Your task to perform on an android device: turn on data saver in the chrome app Image 0: 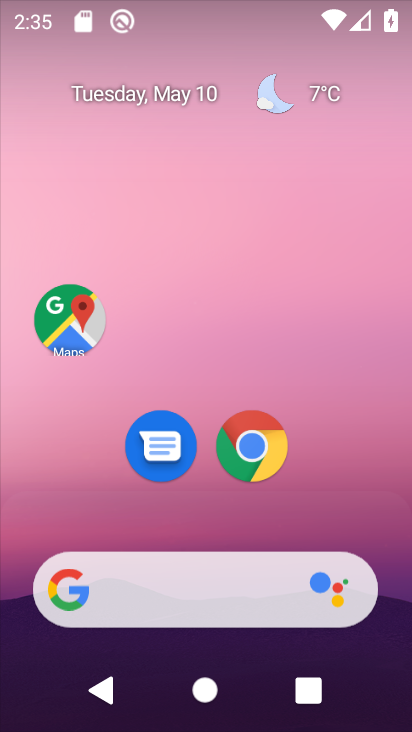
Step 0: click (265, 444)
Your task to perform on an android device: turn on data saver in the chrome app Image 1: 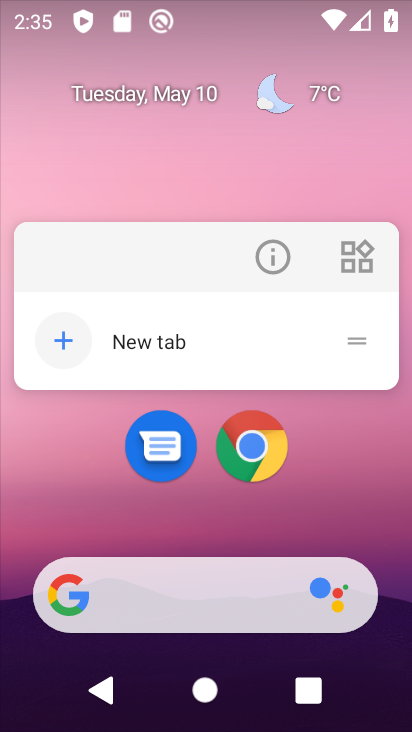
Step 1: click (271, 469)
Your task to perform on an android device: turn on data saver in the chrome app Image 2: 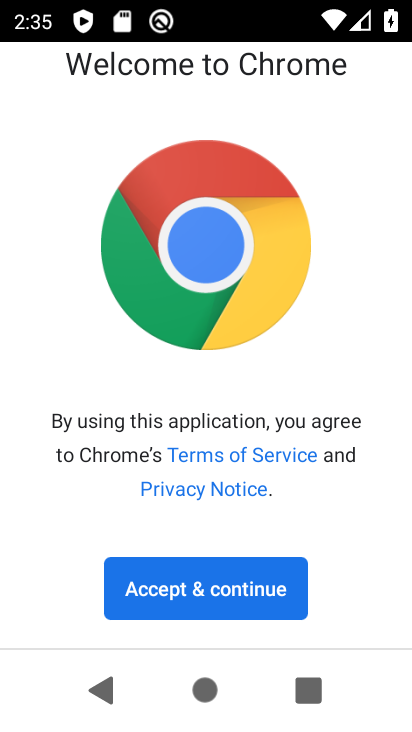
Step 2: click (239, 601)
Your task to perform on an android device: turn on data saver in the chrome app Image 3: 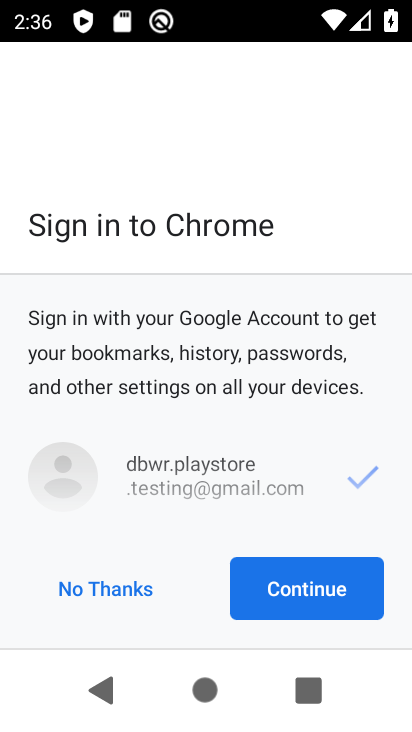
Step 3: click (318, 578)
Your task to perform on an android device: turn on data saver in the chrome app Image 4: 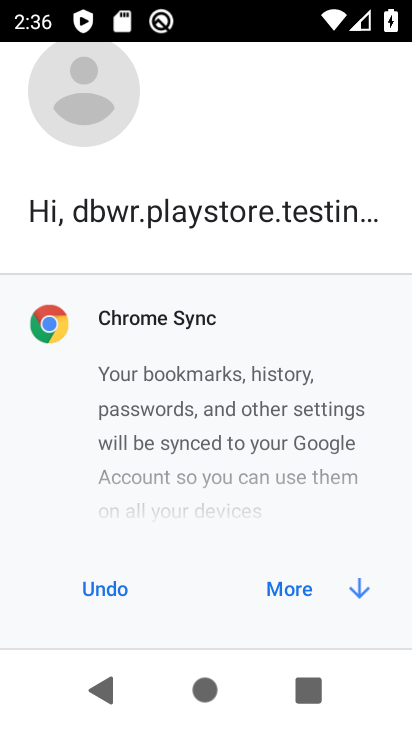
Step 4: click (323, 574)
Your task to perform on an android device: turn on data saver in the chrome app Image 5: 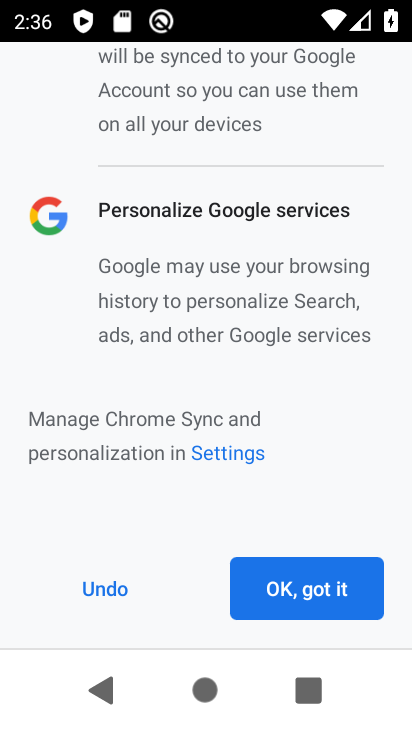
Step 5: click (332, 584)
Your task to perform on an android device: turn on data saver in the chrome app Image 6: 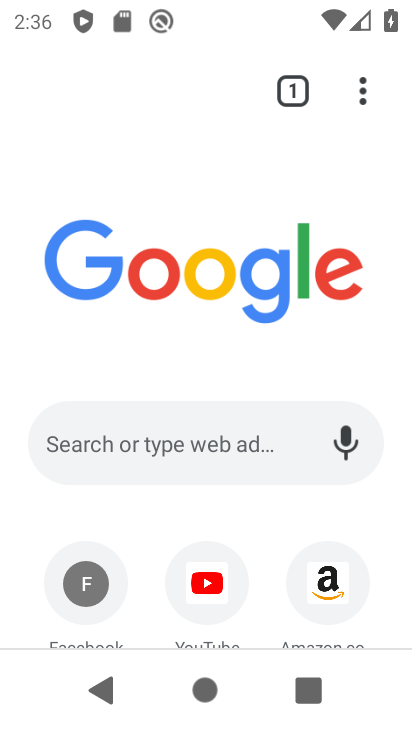
Step 6: click (364, 92)
Your task to perform on an android device: turn on data saver in the chrome app Image 7: 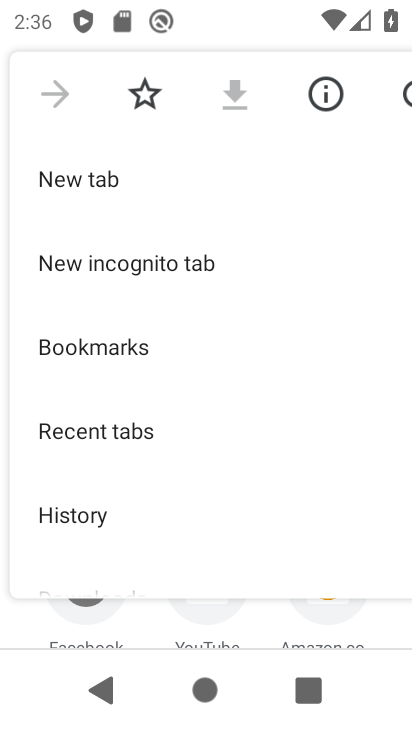
Step 7: drag from (246, 524) to (201, 203)
Your task to perform on an android device: turn on data saver in the chrome app Image 8: 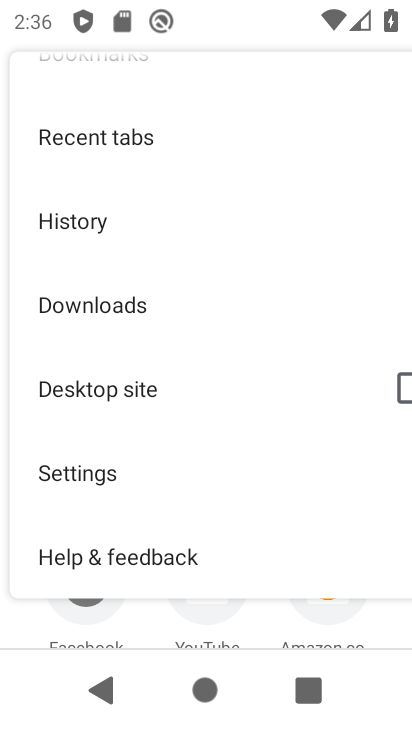
Step 8: click (212, 482)
Your task to perform on an android device: turn on data saver in the chrome app Image 9: 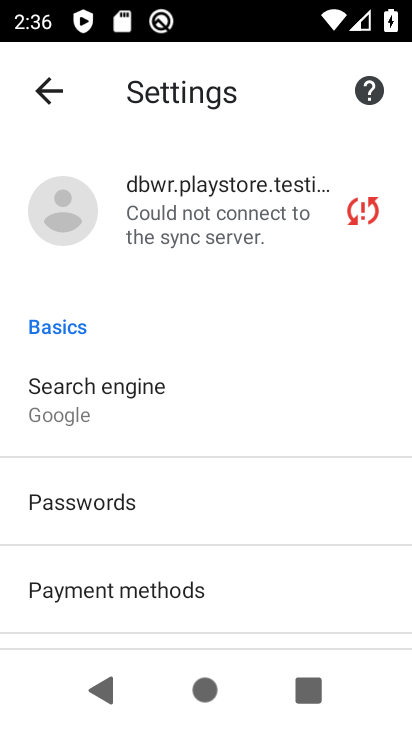
Step 9: drag from (290, 568) to (236, 188)
Your task to perform on an android device: turn on data saver in the chrome app Image 10: 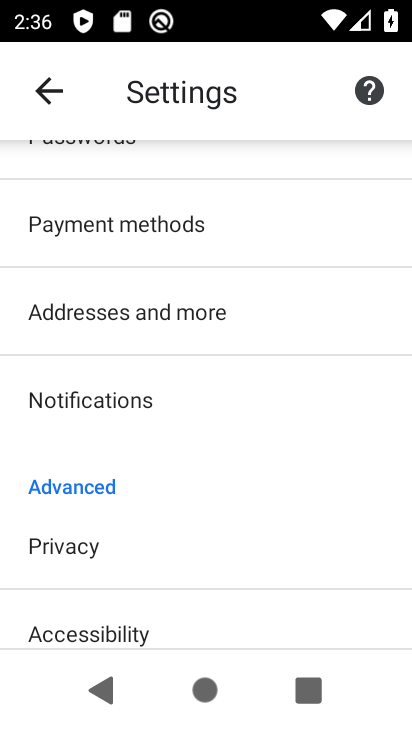
Step 10: drag from (249, 529) to (232, 197)
Your task to perform on an android device: turn on data saver in the chrome app Image 11: 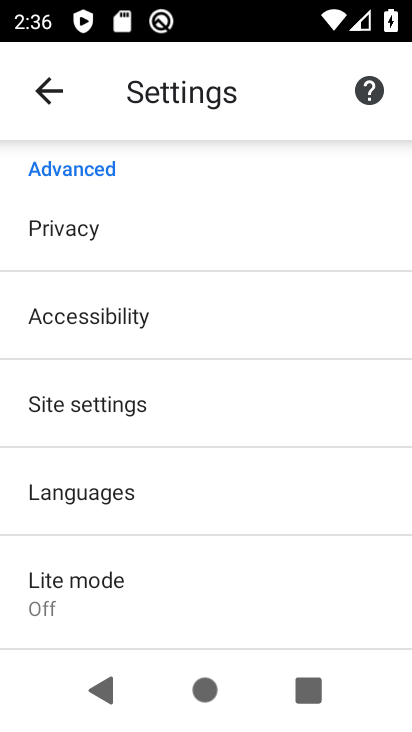
Step 11: drag from (213, 545) to (239, 352)
Your task to perform on an android device: turn on data saver in the chrome app Image 12: 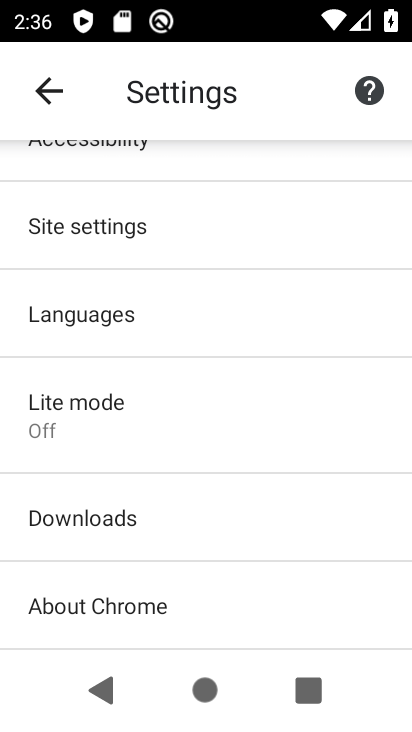
Step 12: click (173, 419)
Your task to perform on an android device: turn on data saver in the chrome app Image 13: 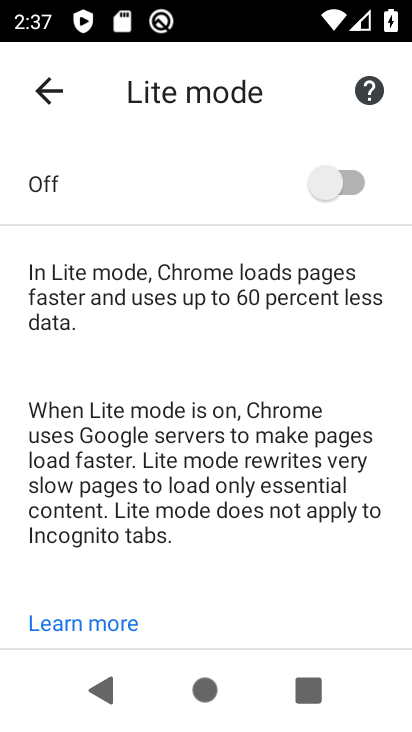
Step 13: click (344, 182)
Your task to perform on an android device: turn on data saver in the chrome app Image 14: 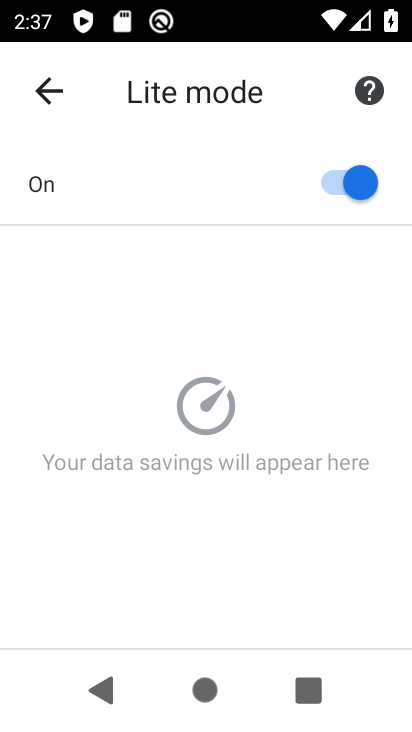
Step 14: task complete